Your task to perform on an android device: turn on translation in the chrome app Image 0: 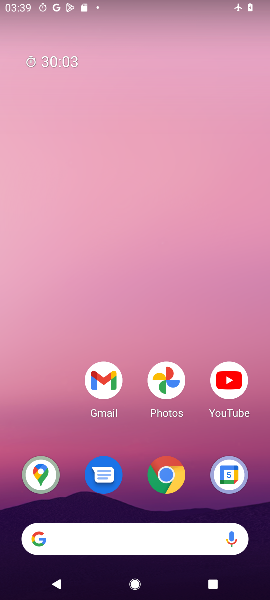
Step 0: drag from (43, 421) to (56, 196)
Your task to perform on an android device: turn on translation in the chrome app Image 1: 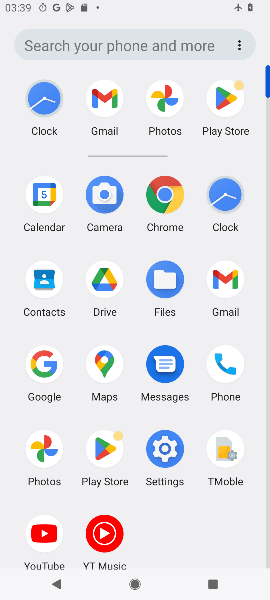
Step 1: click (180, 196)
Your task to perform on an android device: turn on translation in the chrome app Image 2: 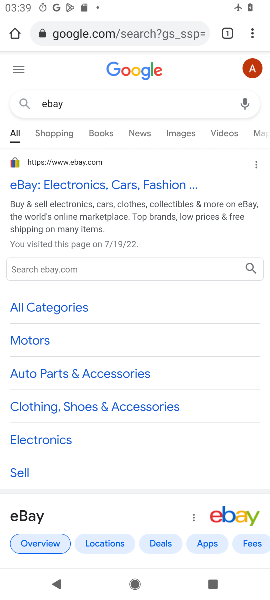
Step 2: click (252, 36)
Your task to perform on an android device: turn on translation in the chrome app Image 3: 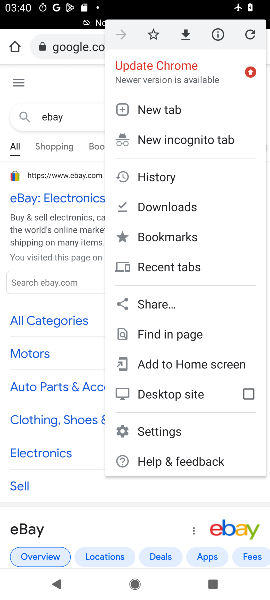
Step 3: click (191, 431)
Your task to perform on an android device: turn on translation in the chrome app Image 4: 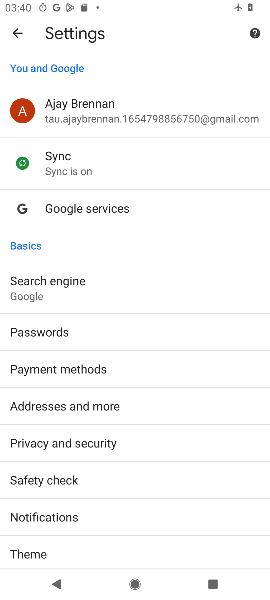
Step 4: drag from (197, 500) to (191, 401)
Your task to perform on an android device: turn on translation in the chrome app Image 5: 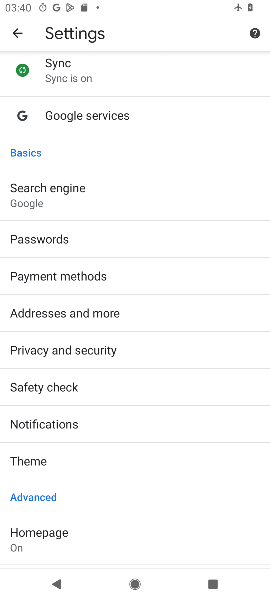
Step 5: drag from (177, 501) to (172, 418)
Your task to perform on an android device: turn on translation in the chrome app Image 6: 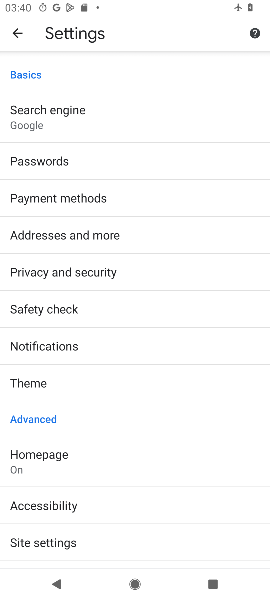
Step 6: drag from (167, 472) to (152, 384)
Your task to perform on an android device: turn on translation in the chrome app Image 7: 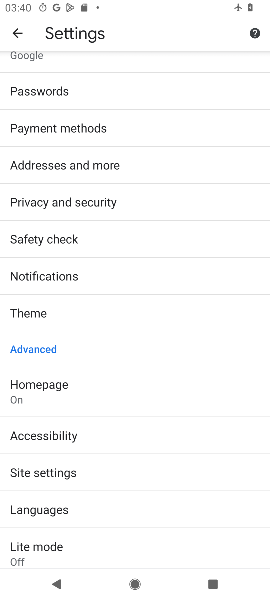
Step 7: drag from (155, 511) to (146, 383)
Your task to perform on an android device: turn on translation in the chrome app Image 8: 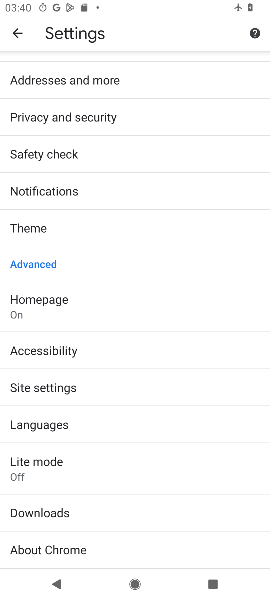
Step 8: click (141, 413)
Your task to perform on an android device: turn on translation in the chrome app Image 9: 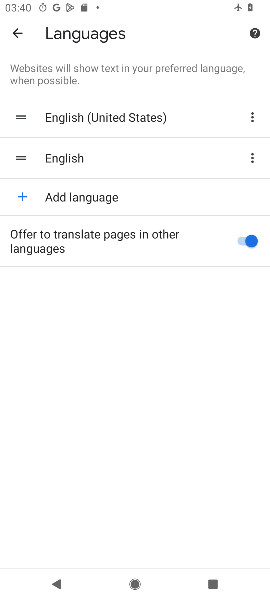
Step 9: task complete